Your task to perform on an android device: Turn on the flashlight Image 0: 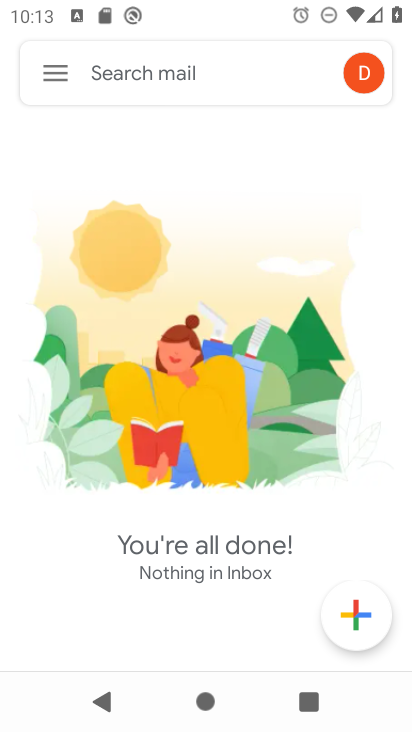
Step 0: press home button
Your task to perform on an android device: Turn on the flashlight Image 1: 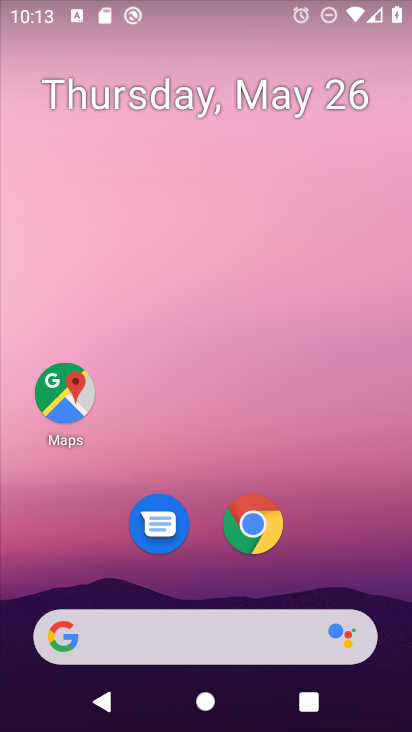
Step 1: drag from (224, 436) to (189, 50)
Your task to perform on an android device: Turn on the flashlight Image 2: 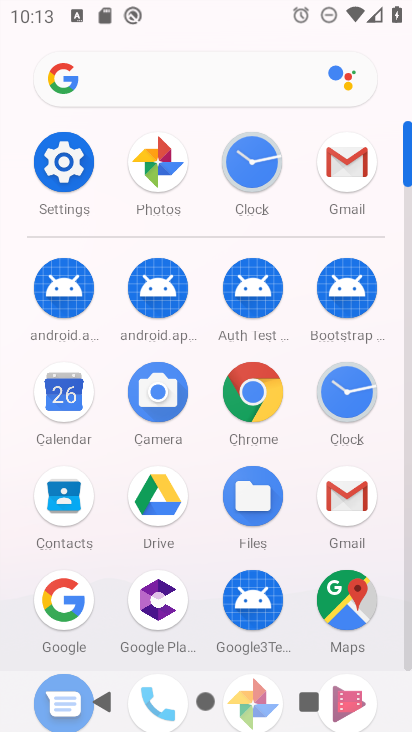
Step 2: click (61, 160)
Your task to perform on an android device: Turn on the flashlight Image 3: 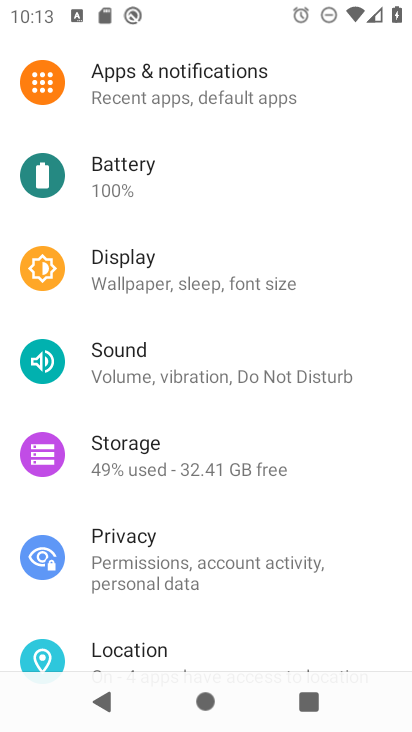
Step 3: drag from (199, 185) to (284, 606)
Your task to perform on an android device: Turn on the flashlight Image 4: 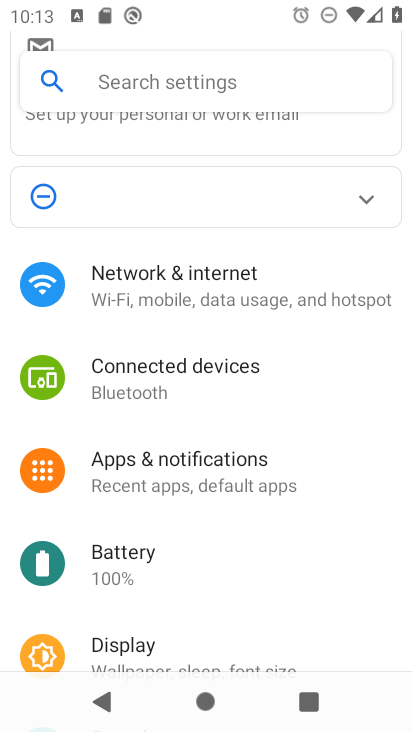
Step 4: drag from (263, 312) to (314, 599)
Your task to perform on an android device: Turn on the flashlight Image 5: 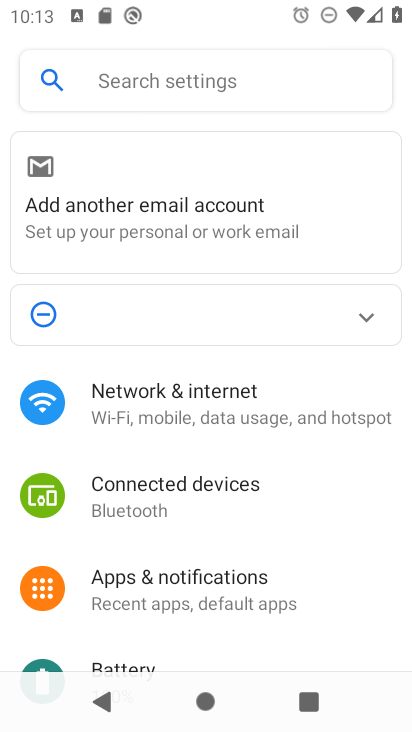
Step 5: click (253, 69)
Your task to perform on an android device: Turn on the flashlight Image 6: 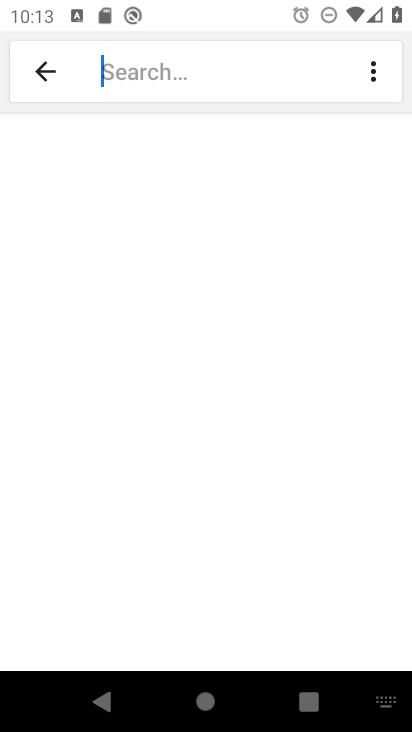
Step 6: type "Flashlight"
Your task to perform on an android device: Turn on the flashlight Image 7: 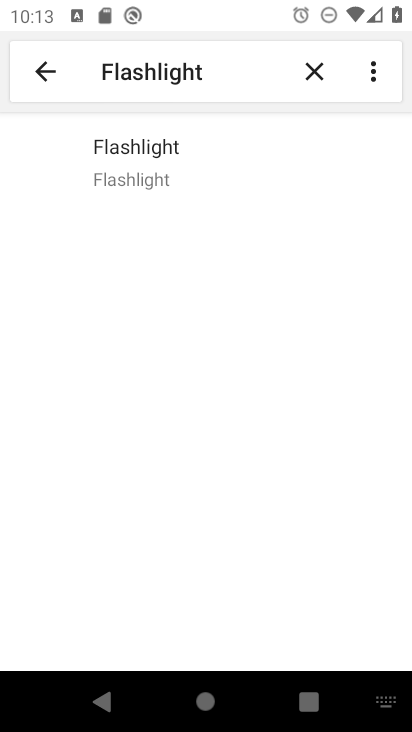
Step 7: click (143, 168)
Your task to perform on an android device: Turn on the flashlight Image 8: 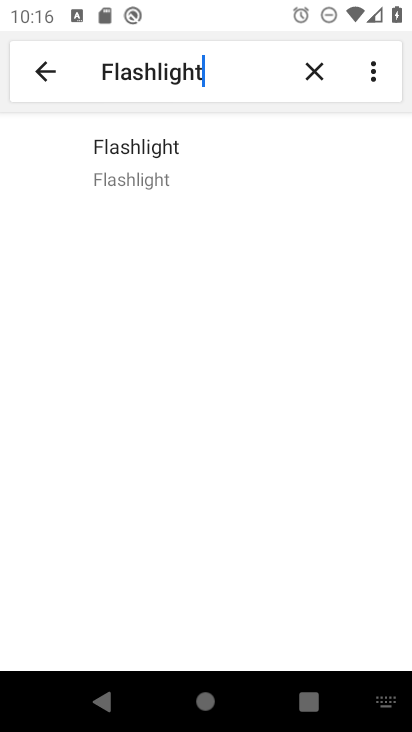
Step 8: task complete